Your task to perform on an android device: change the clock display to show seconds Image 0: 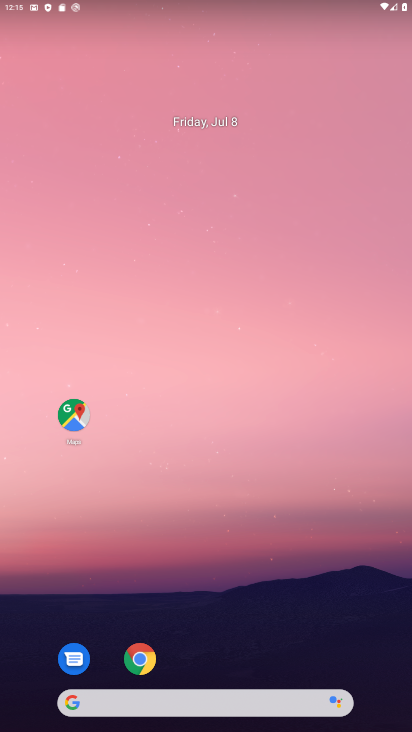
Step 0: drag from (218, 630) to (196, 134)
Your task to perform on an android device: change the clock display to show seconds Image 1: 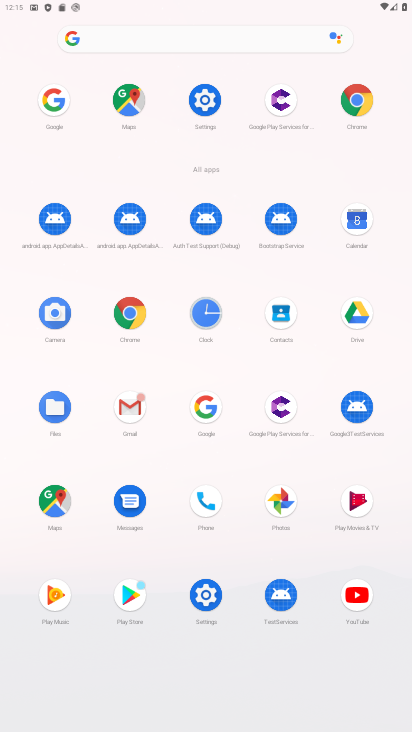
Step 1: click (214, 322)
Your task to perform on an android device: change the clock display to show seconds Image 2: 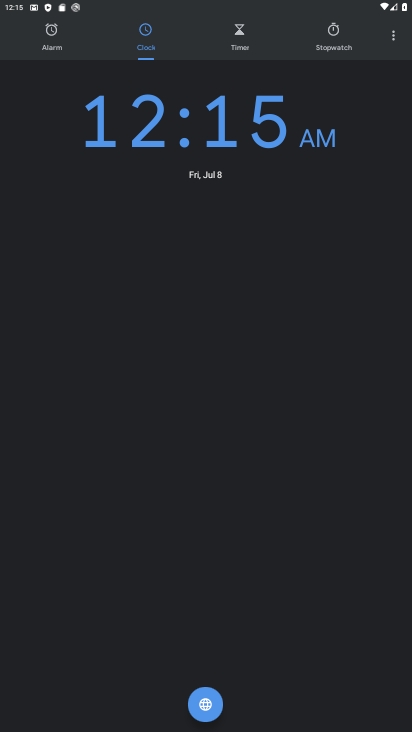
Step 2: click (395, 29)
Your task to perform on an android device: change the clock display to show seconds Image 3: 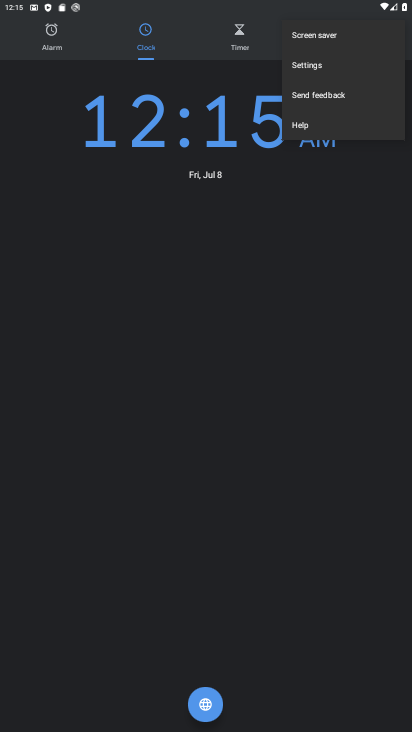
Step 3: click (318, 67)
Your task to perform on an android device: change the clock display to show seconds Image 4: 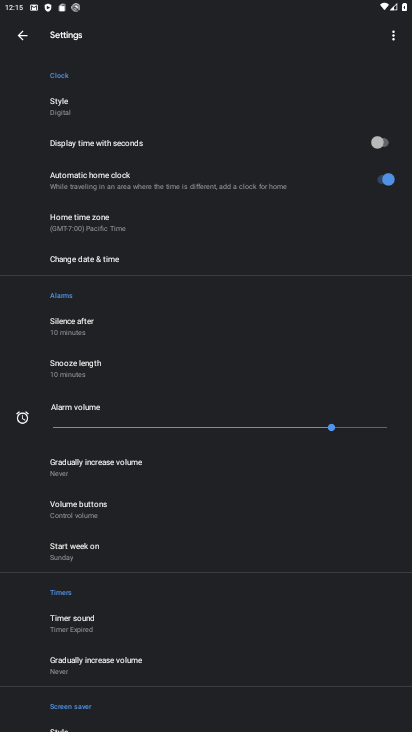
Step 4: click (374, 143)
Your task to perform on an android device: change the clock display to show seconds Image 5: 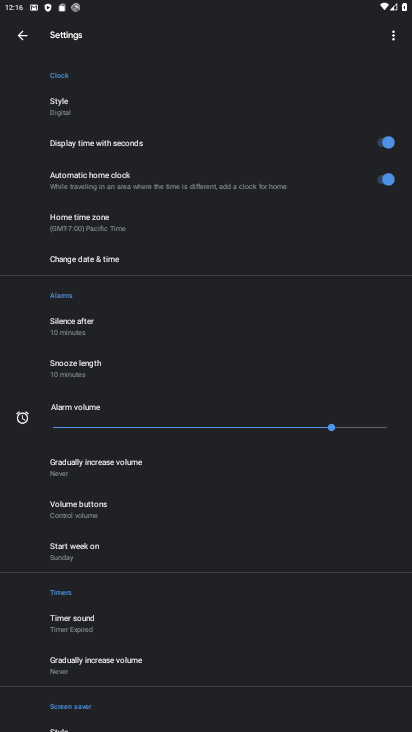
Step 5: task complete